Your task to perform on an android device: Search for sushi restaurants on Maps Image 0: 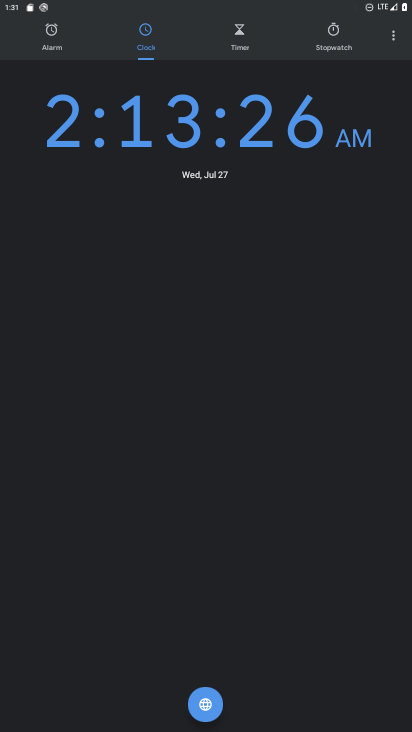
Step 0: press home button
Your task to perform on an android device: Search for sushi restaurants on Maps Image 1: 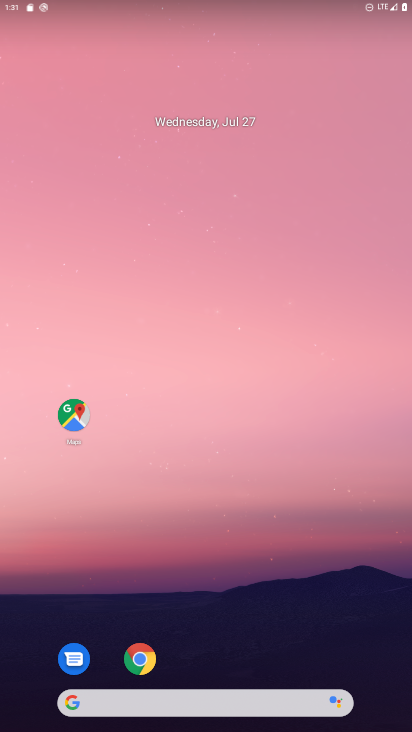
Step 1: click (63, 410)
Your task to perform on an android device: Search for sushi restaurants on Maps Image 2: 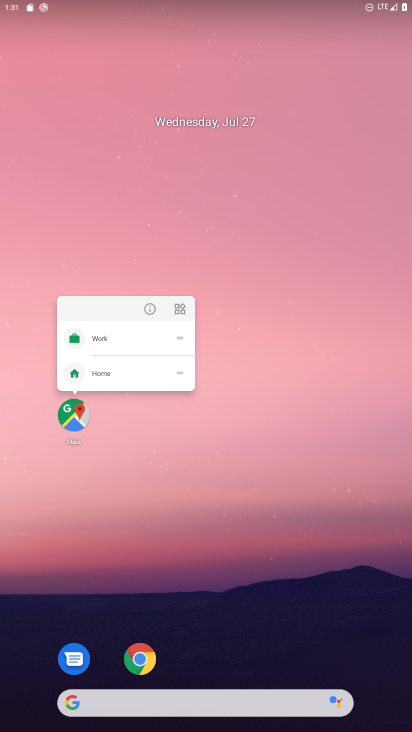
Step 2: click (65, 420)
Your task to perform on an android device: Search for sushi restaurants on Maps Image 3: 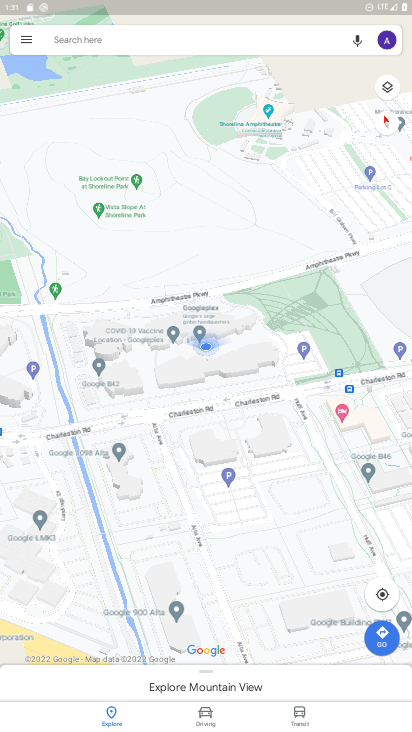
Step 3: click (172, 29)
Your task to perform on an android device: Search for sushi restaurants on Maps Image 4: 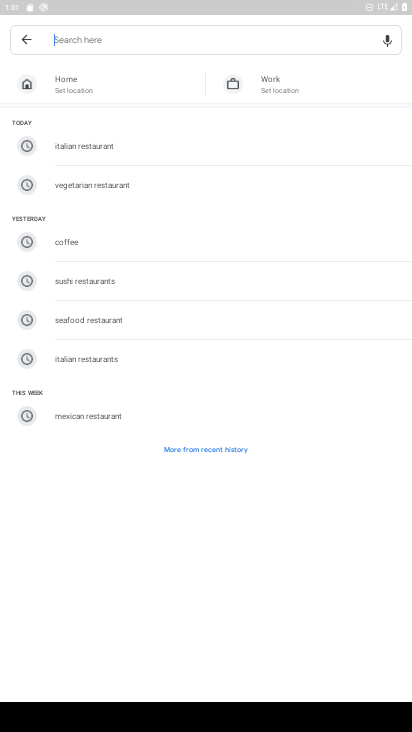
Step 4: click (82, 279)
Your task to perform on an android device: Search for sushi restaurants on Maps Image 5: 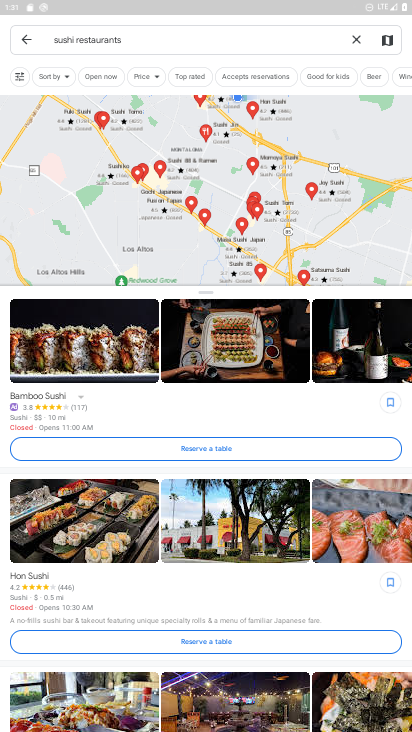
Step 5: drag from (202, 569) to (198, 450)
Your task to perform on an android device: Search for sushi restaurants on Maps Image 6: 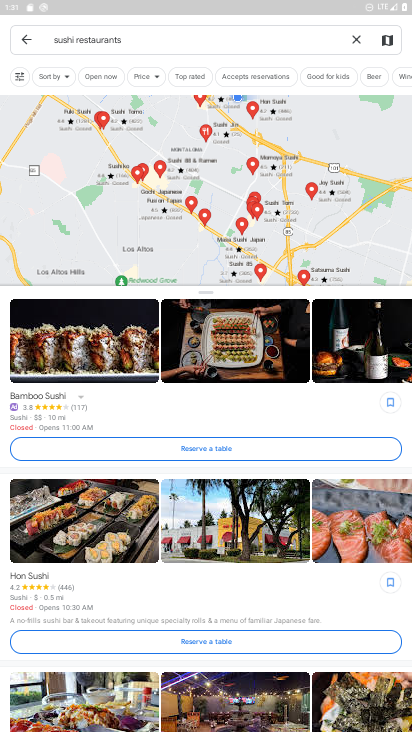
Step 6: click (284, 304)
Your task to perform on an android device: Search for sushi restaurants on Maps Image 7: 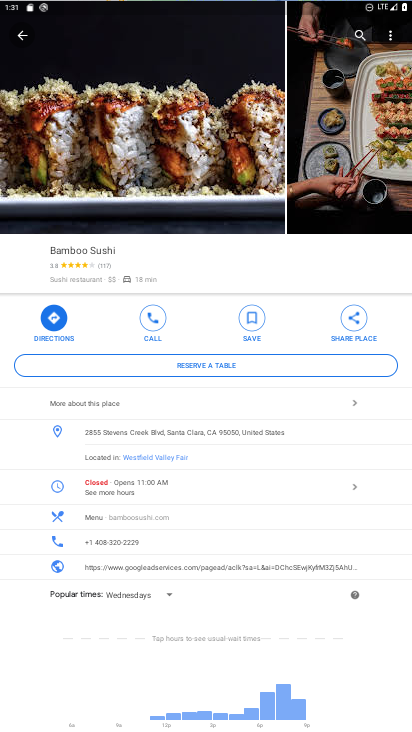
Step 7: click (22, 35)
Your task to perform on an android device: Search for sushi restaurants on Maps Image 8: 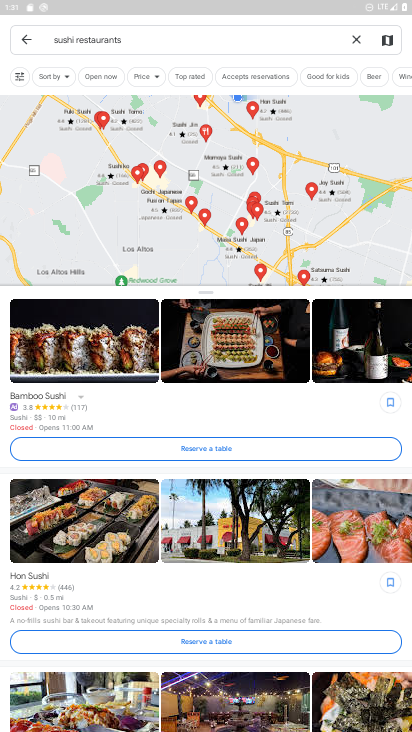
Step 8: task complete